Your task to perform on an android device: Go to Google Image 0: 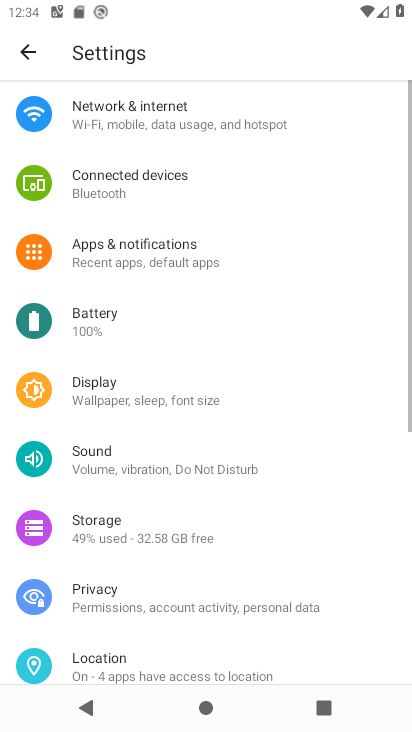
Step 0: press home button
Your task to perform on an android device: Go to Google Image 1: 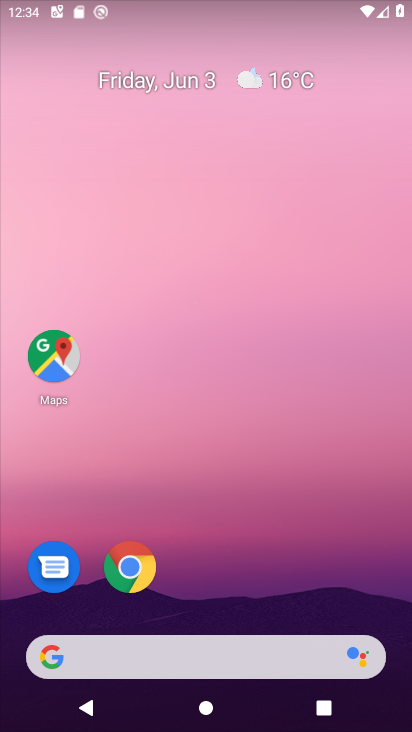
Step 1: drag from (366, 618) to (387, 288)
Your task to perform on an android device: Go to Google Image 2: 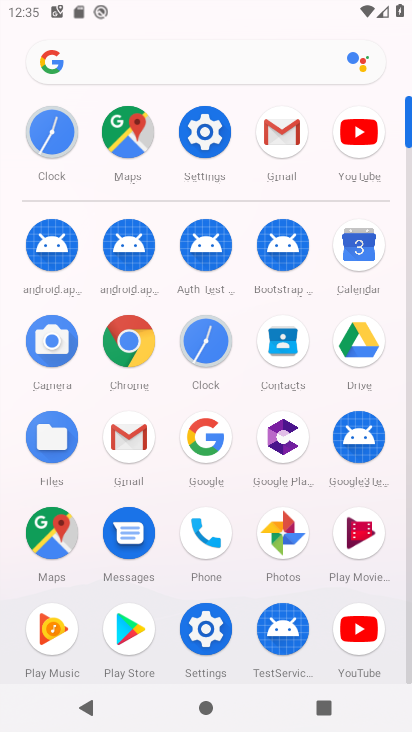
Step 2: click (220, 437)
Your task to perform on an android device: Go to Google Image 3: 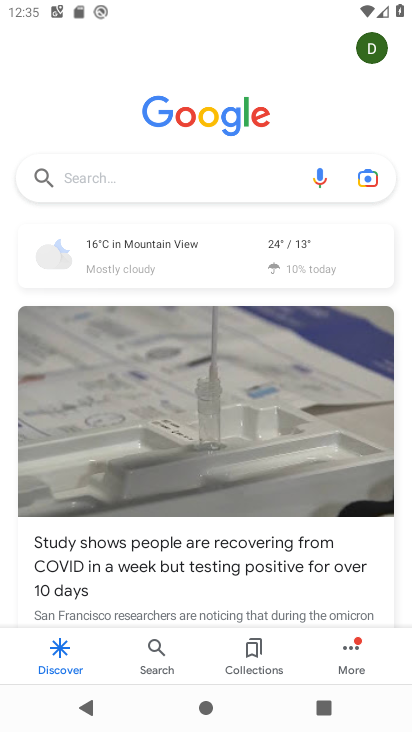
Step 3: task complete